Your task to perform on an android device: Go to battery settings Image 0: 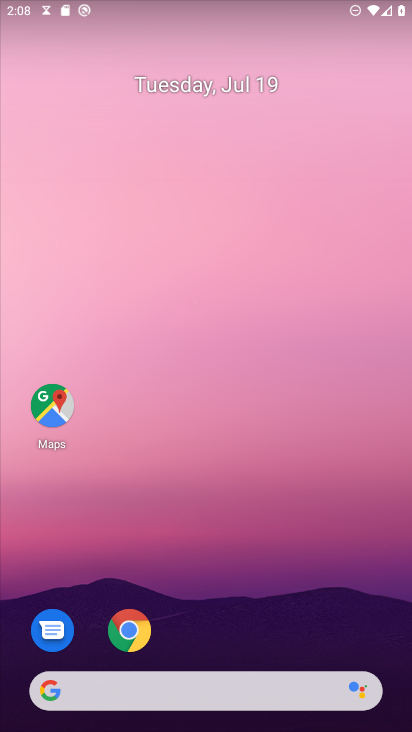
Step 0: press home button
Your task to perform on an android device: Go to battery settings Image 1: 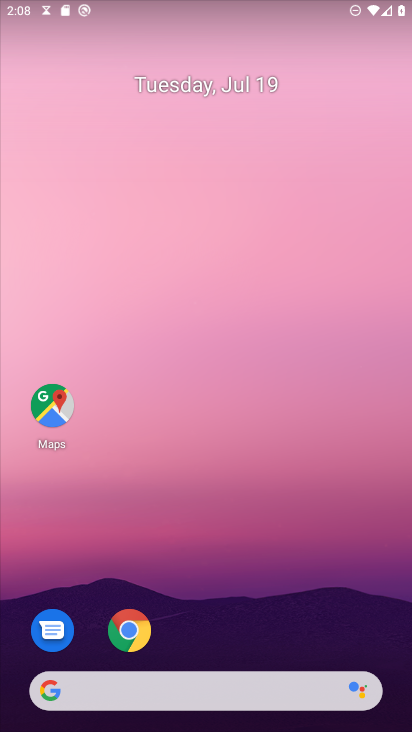
Step 1: drag from (203, 693) to (215, 42)
Your task to perform on an android device: Go to battery settings Image 2: 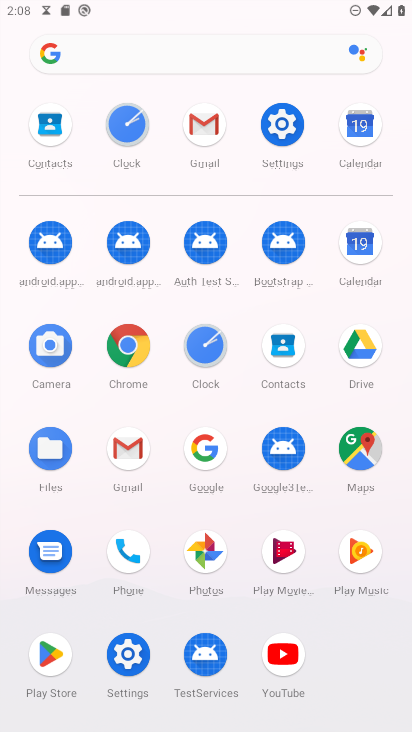
Step 2: click (280, 127)
Your task to perform on an android device: Go to battery settings Image 3: 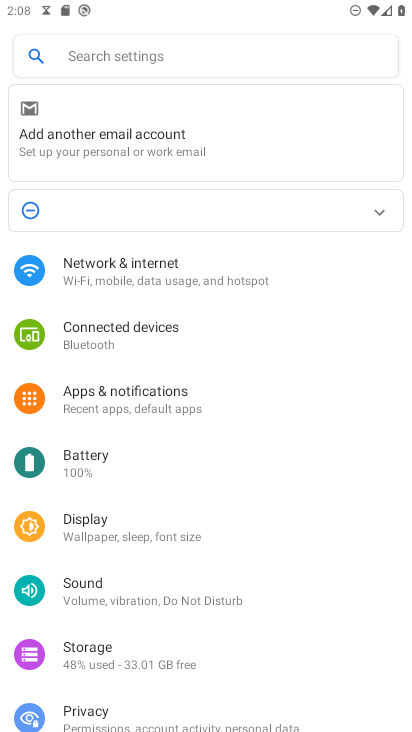
Step 3: click (84, 460)
Your task to perform on an android device: Go to battery settings Image 4: 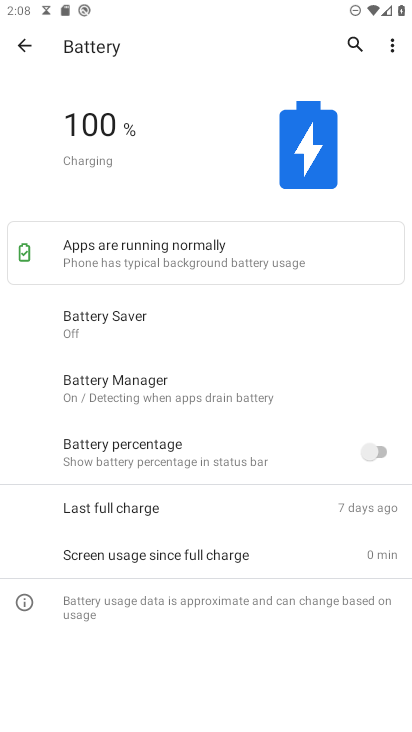
Step 4: task complete